Your task to perform on an android device: change notifications settings Image 0: 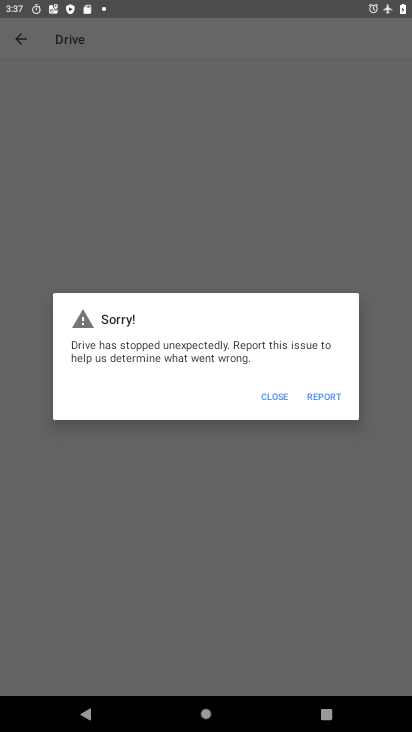
Step 0: drag from (242, 722) to (247, 203)
Your task to perform on an android device: change notifications settings Image 1: 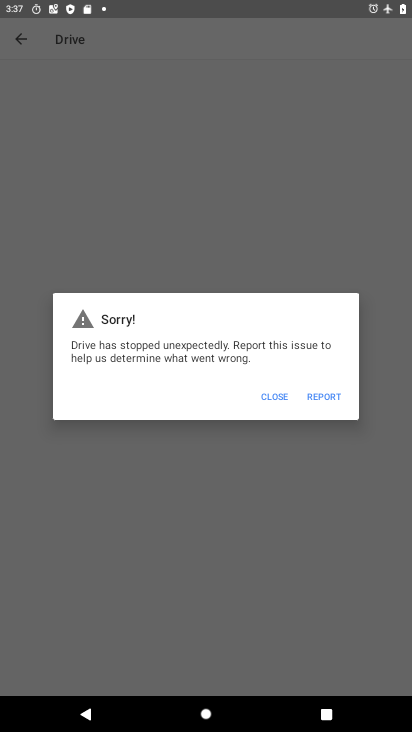
Step 1: press home button
Your task to perform on an android device: change notifications settings Image 2: 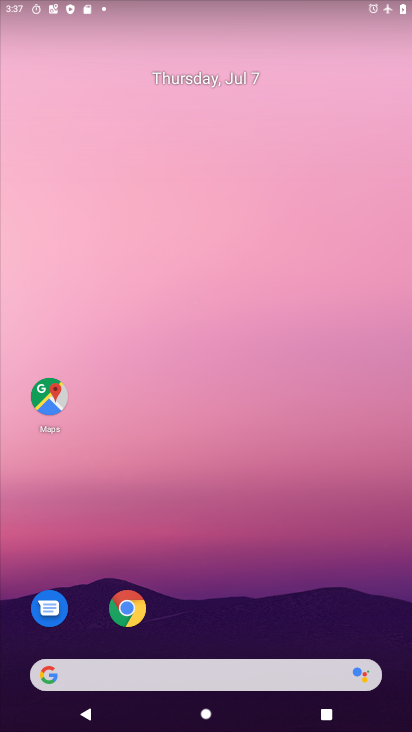
Step 2: drag from (243, 693) to (228, 190)
Your task to perform on an android device: change notifications settings Image 3: 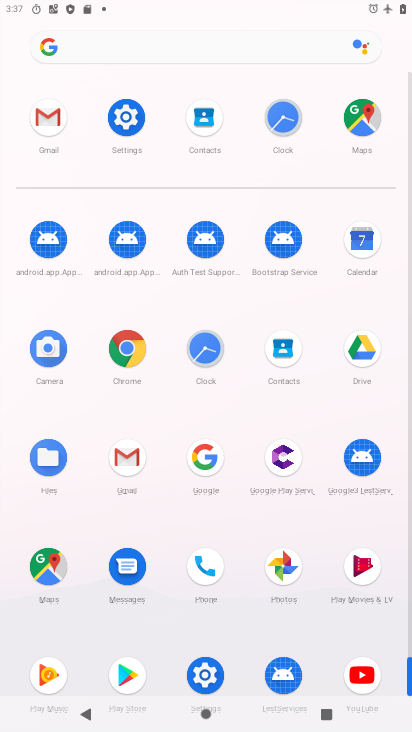
Step 3: click (114, 113)
Your task to perform on an android device: change notifications settings Image 4: 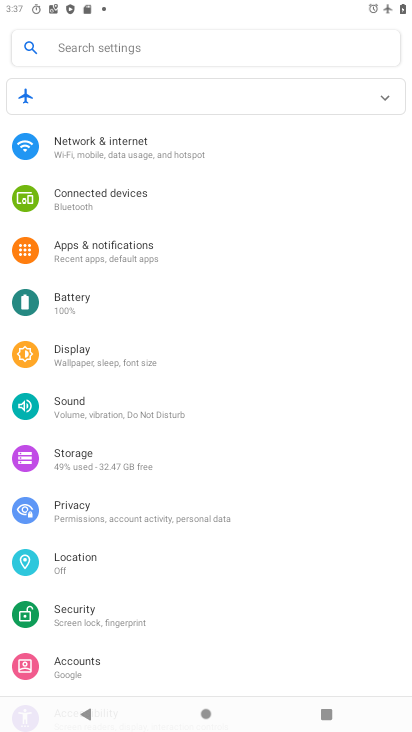
Step 4: click (114, 243)
Your task to perform on an android device: change notifications settings Image 5: 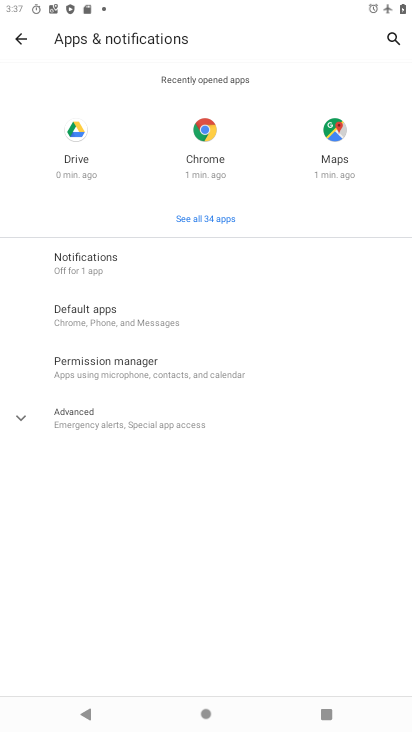
Step 5: click (82, 259)
Your task to perform on an android device: change notifications settings Image 6: 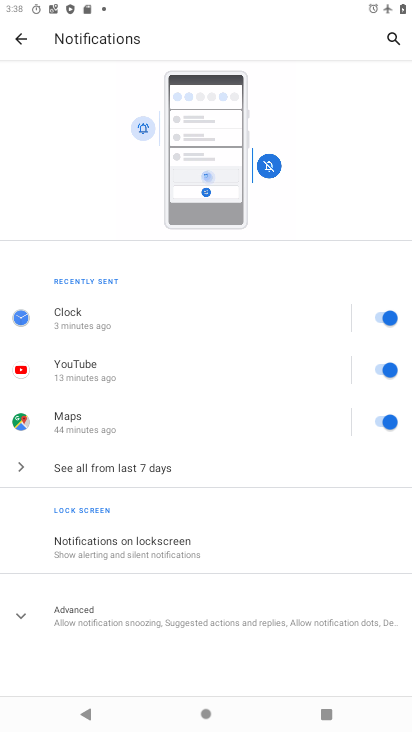
Step 6: drag from (213, 645) to (206, 414)
Your task to perform on an android device: change notifications settings Image 7: 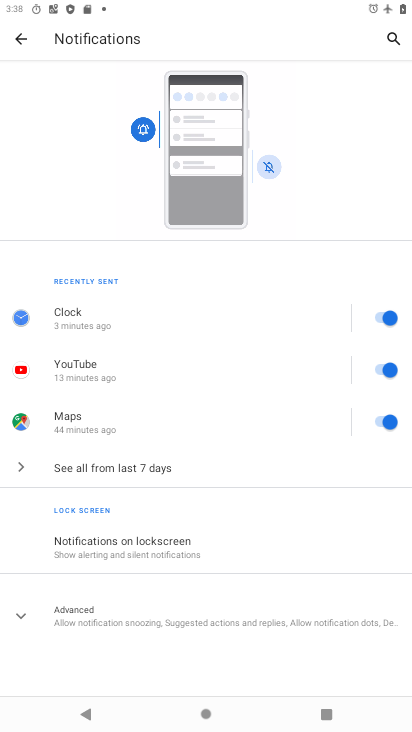
Step 7: click (136, 609)
Your task to perform on an android device: change notifications settings Image 8: 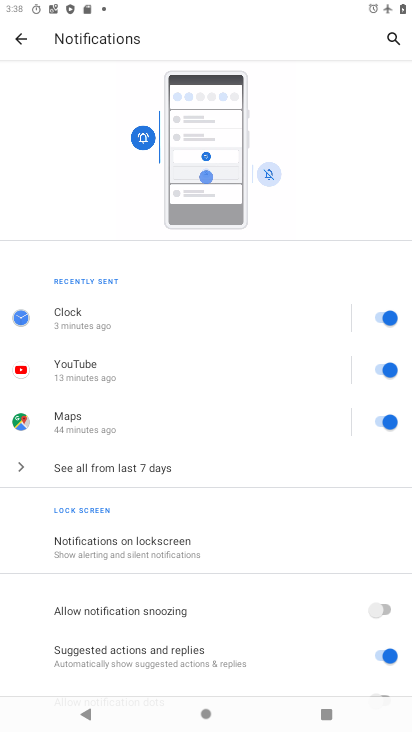
Step 8: drag from (302, 662) to (267, 408)
Your task to perform on an android device: change notifications settings Image 9: 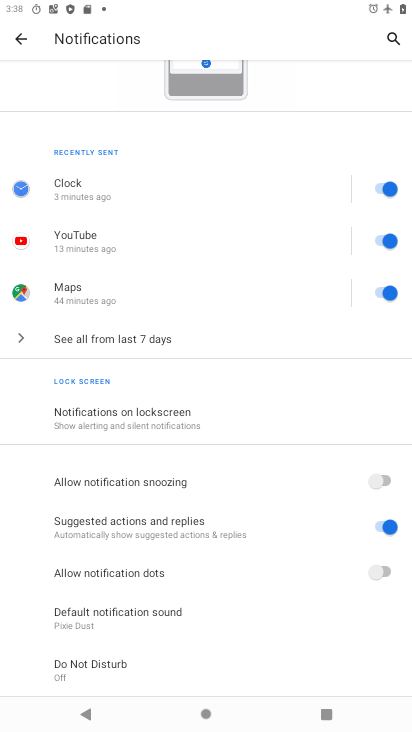
Step 9: click (383, 484)
Your task to perform on an android device: change notifications settings Image 10: 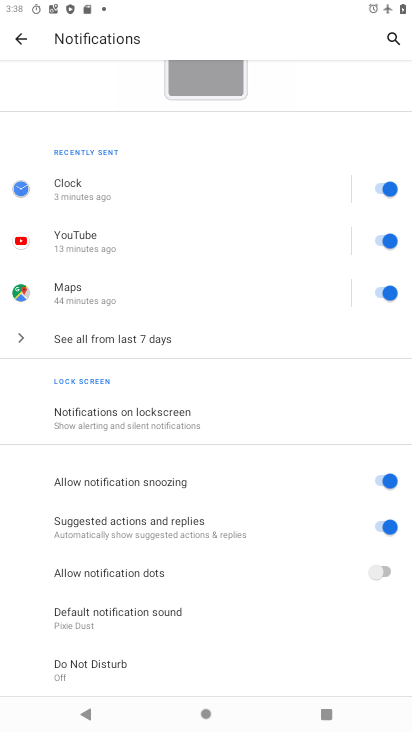
Step 10: task complete